Your task to perform on an android device: Go to Maps Image 0: 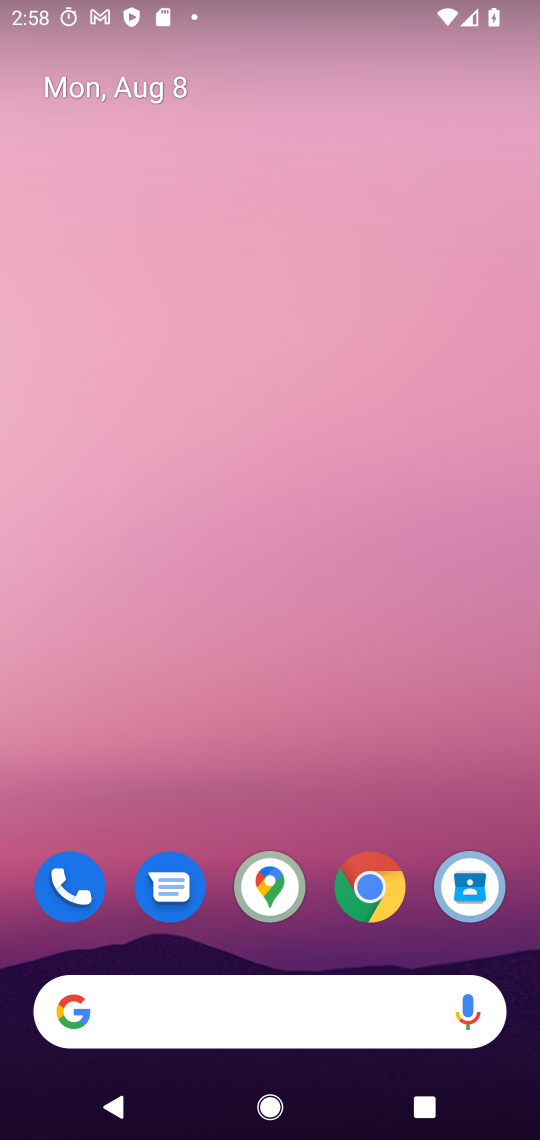
Step 0: click (256, 907)
Your task to perform on an android device: Go to Maps Image 1: 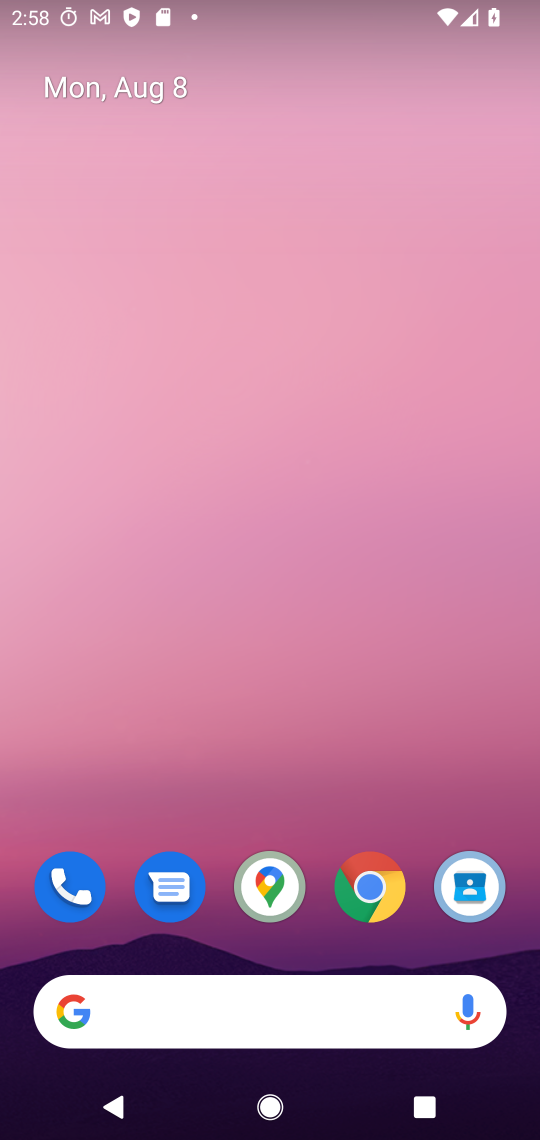
Step 1: click (286, 891)
Your task to perform on an android device: Go to Maps Image 2: 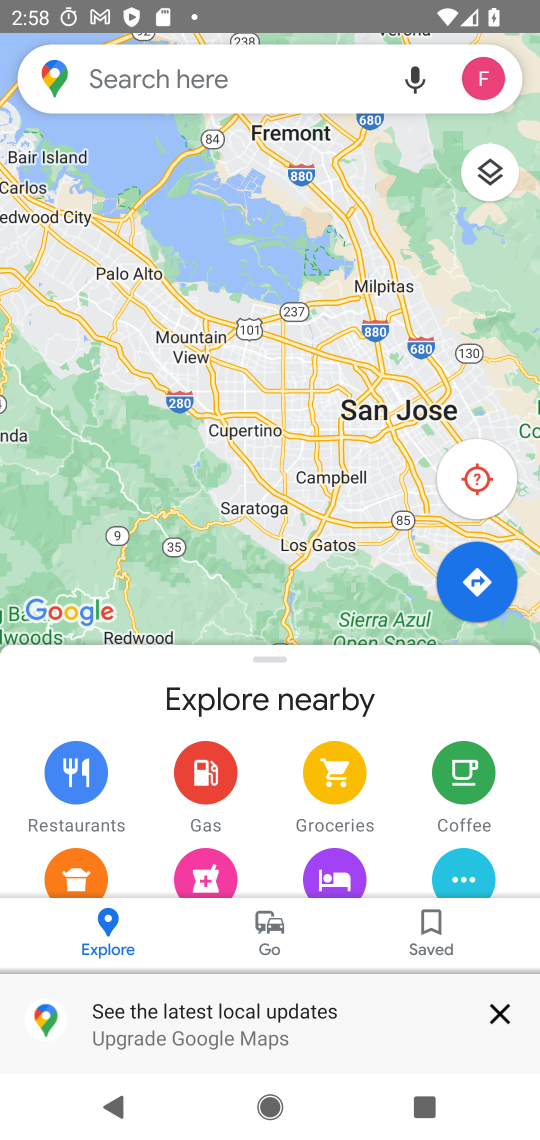
Step 2: task complete